Your task to perform on an android device: Do I have any events this weekend? Image 0: 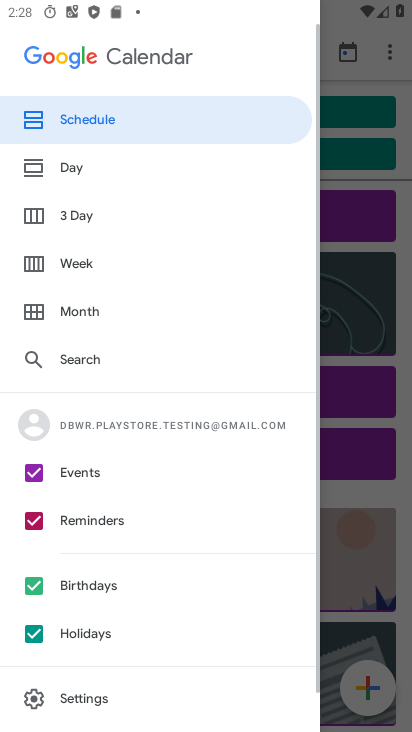
Step 0: drag from (181, 573) to (214, 151)
Your task to perform on an android device: Do I have any events this weekend? Image 1: 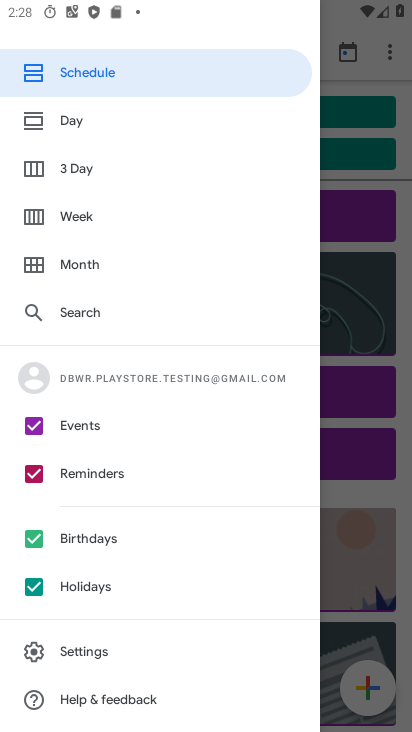
Step 1: click (409, 111)
Your task to perform on an android device: Do I have any events this weekend? Image 2: 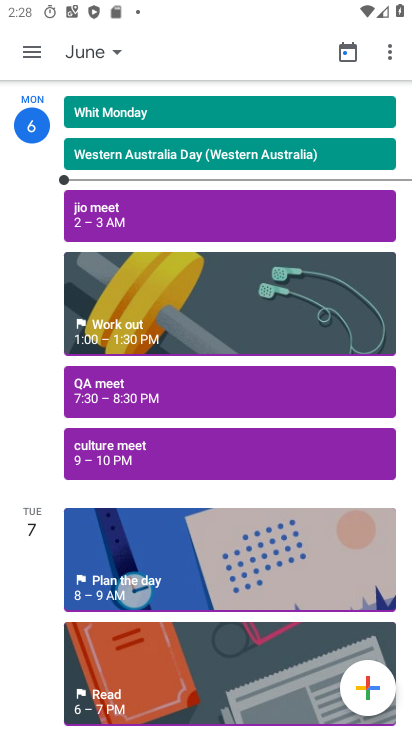
Step 2: click (90, 48)
Your task to perform on an android device: Do I have any events this weekend? Image 3: 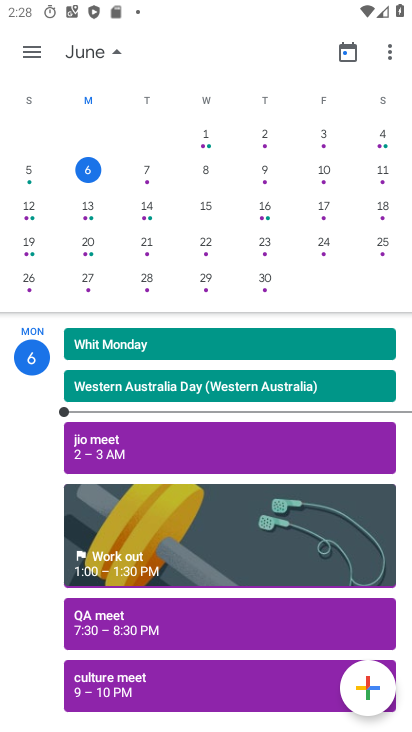
Step 3: click (325, 168)
Your task to perform on an android device: Do I have any events this weekend? Image 4: 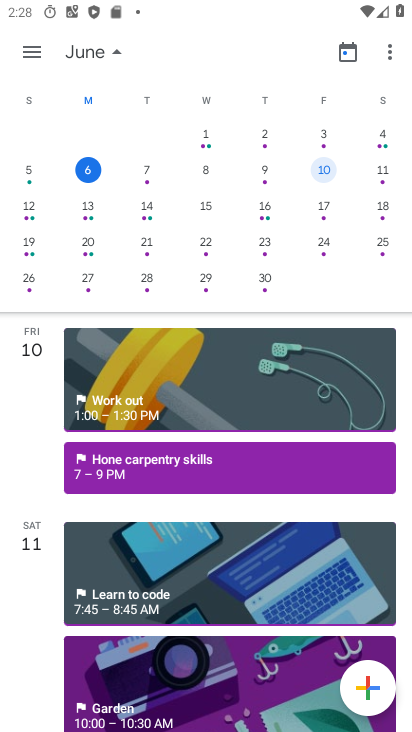
Step 4: task complete